Your task to perform on an android device: add a contact in the contacts app Image 0: 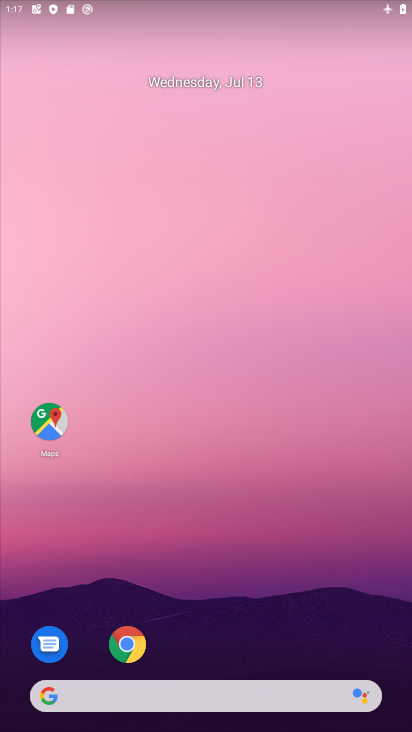
Step 0: press home button
Your task to perform on an android device: add a contact in the contacts app Image 1: 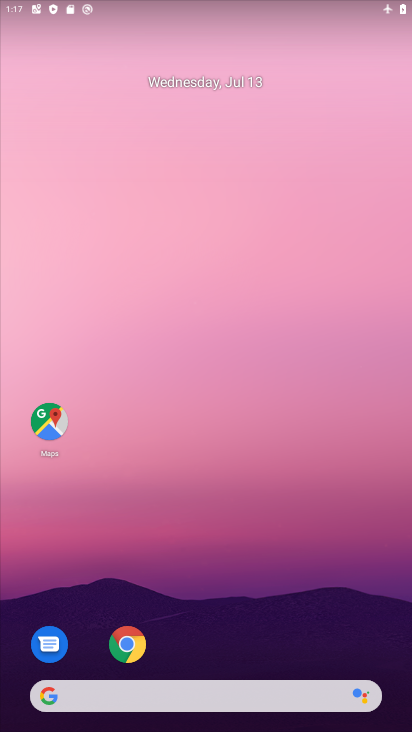
Step 1: drag from (216, 615) to (211, 212)
Your task to perform on an android device: add a contact in the contacts app Image 2: 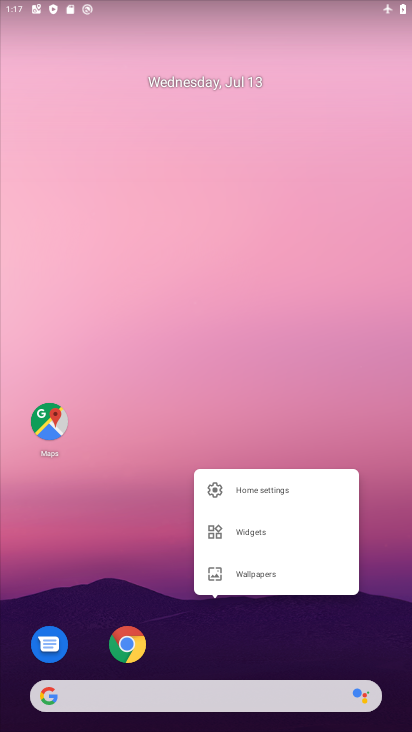
Step 2: drag from (139, 549) to (150, 112)
Your task to perform on an android device: add a contact in the contacts app Image 3: 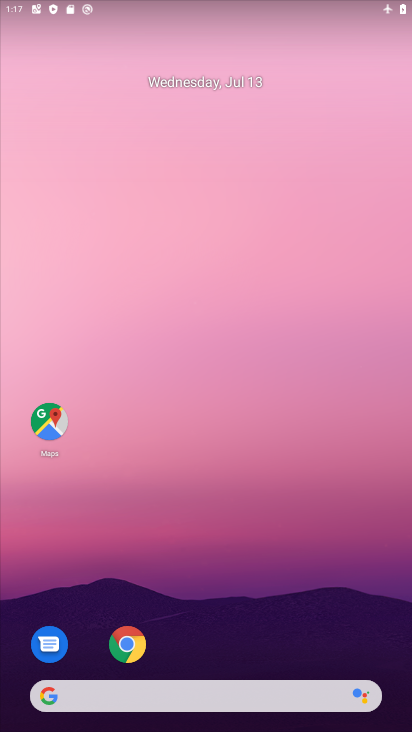
Step 3: drag from (233, 616) to (272, 94)
Your task to perform on an android device: add a contact in the contacts app Image 4: 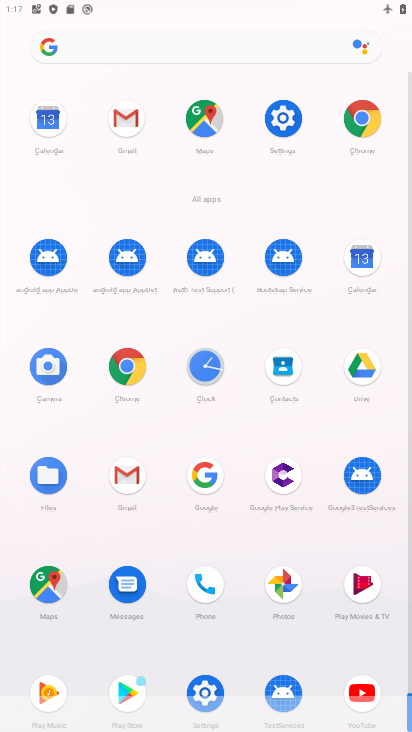
Step 4: click (282, 368)
Your task to perform on an android device: add a contact in the contacts app Image 5: 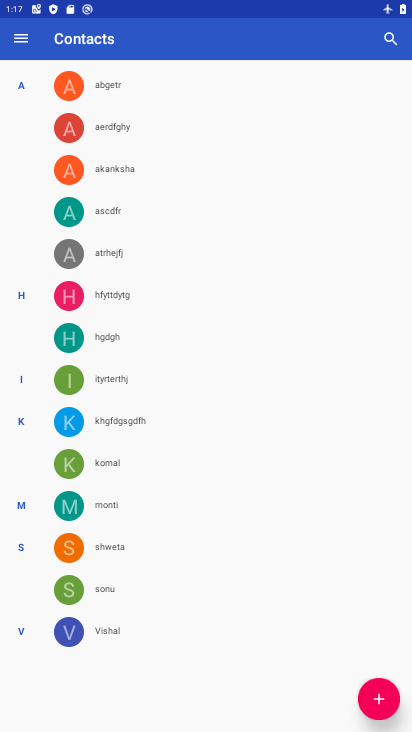
Step 5: click (379, 706)
Your task to perform on an android device: add a contact in the contacts app Image 6: 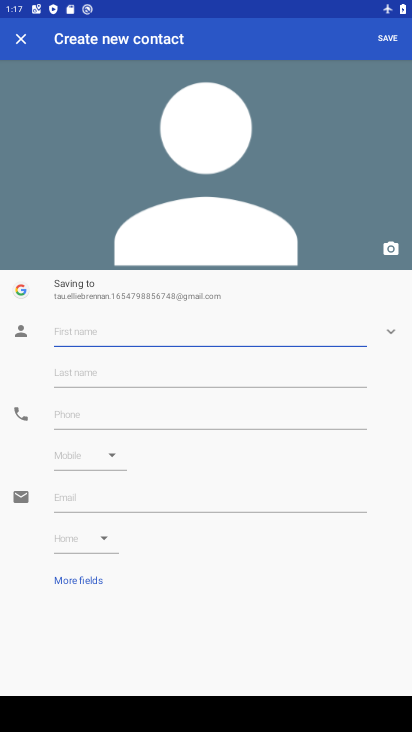
Step 6: click (193, 339)
Your task to perform on an android device: add a contact in the contacts app Image 7: 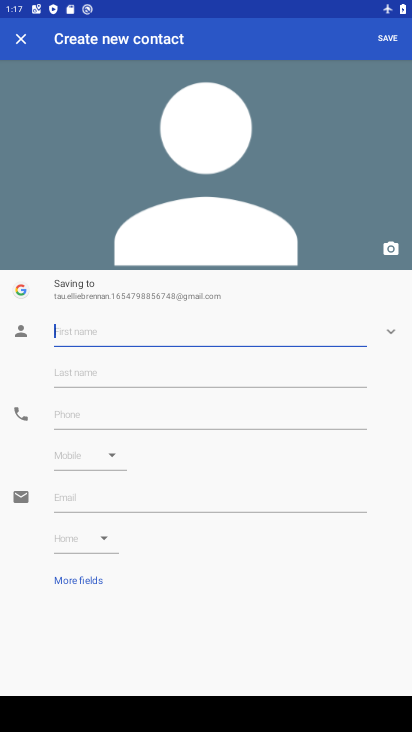
Step 7: type "ghggggggggg"
Your task to perform on an android device: add a contact in the contacts app Image 8: 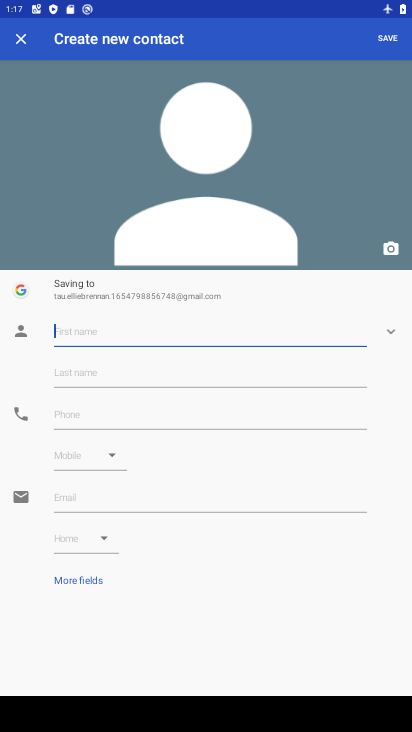
Step 8: click (112, 337)
Your task to perform on an android device: add a contact in the contacts app Image 9: 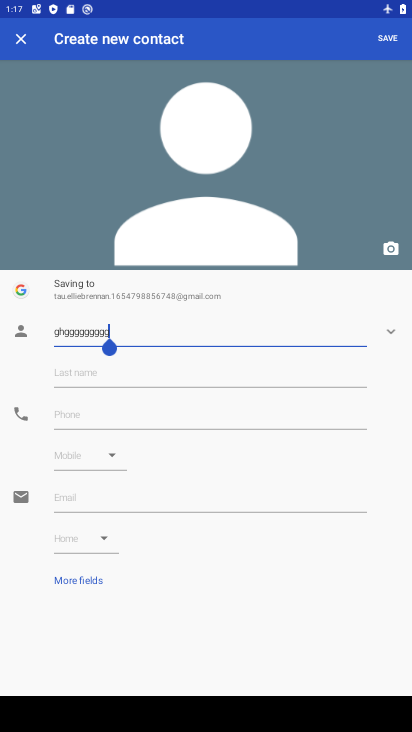
Step 9: click (106, 414)
Your task to perform on an android device: add a contact in the contacts app Image 10: 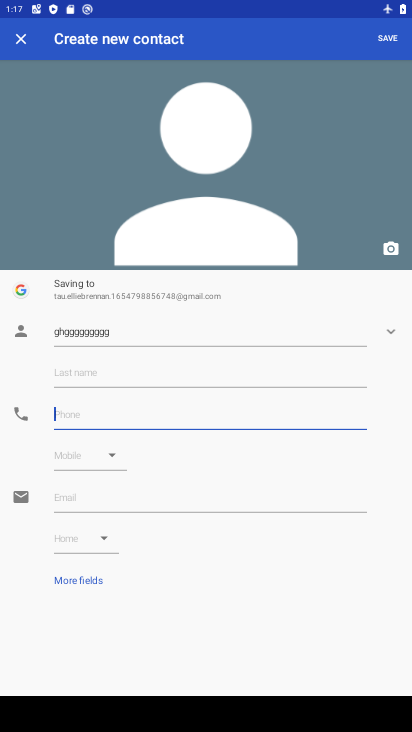
Step 10: type "66666666555554444"
Your task to perform on an android device: add a contact in the contacts app Image 11: 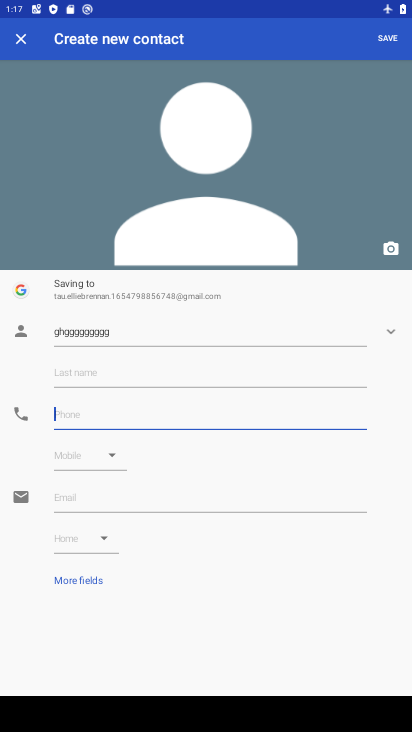
Step 11: click (81, 403)
Your task to perform on an android device: add a contact in the contacts app Image 12: 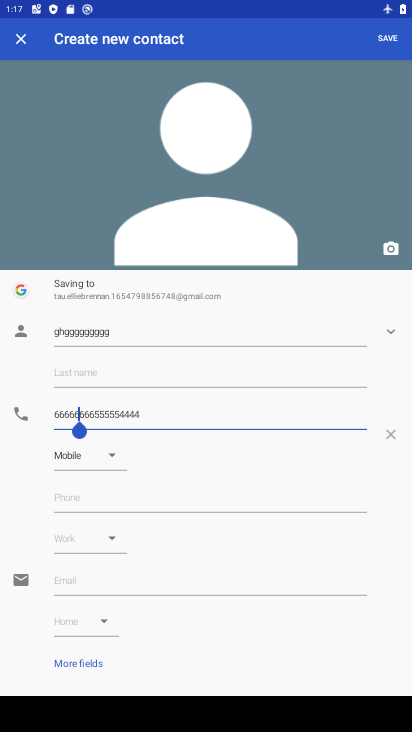
Step 12: click (380, 37)
Your task to perform on an android device: add a contact in the contacts app Image 13: 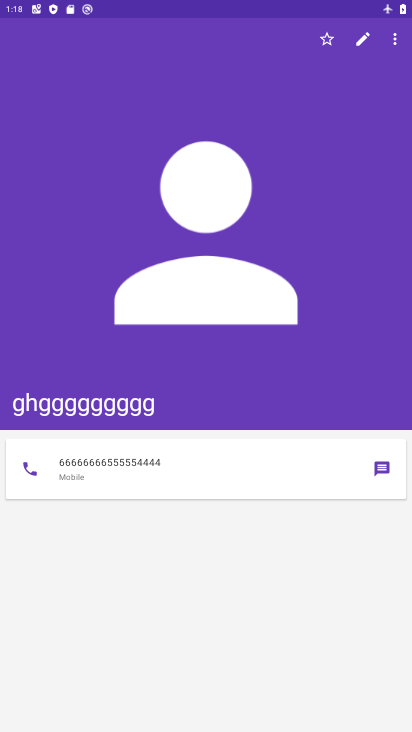
Step 13: task complete